Your task to perform on an android device: turn on improve location accuracy Image 0: 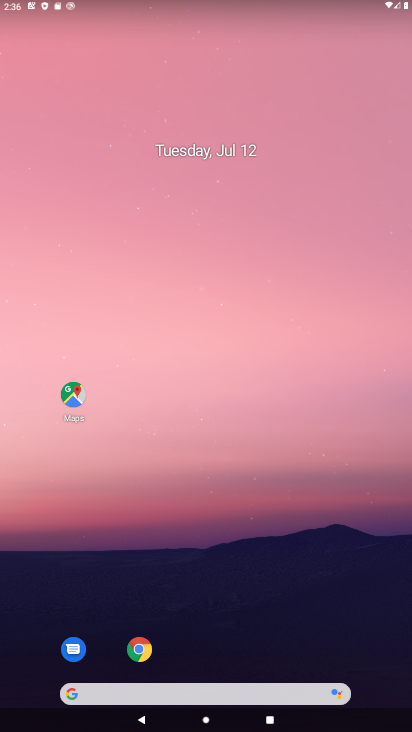
Step 0: drag from (272, 619) to (199, 184)
Your task to perform on an android device: turn on improve location accuracy Image 1: 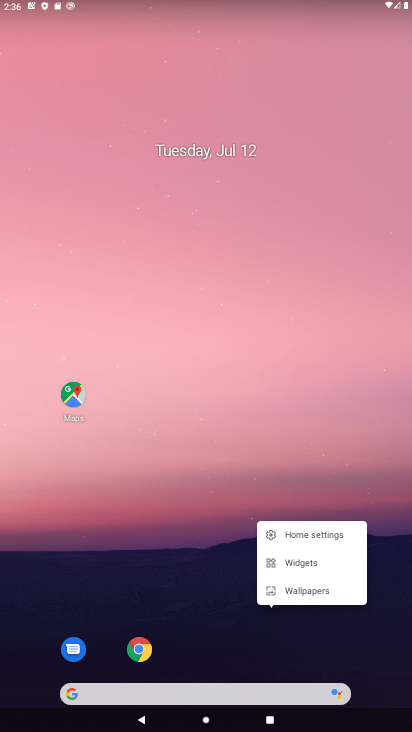
Step 1: click (199, 184)
Your task to perform on an android device: turn on improve location accuracy Image 2: 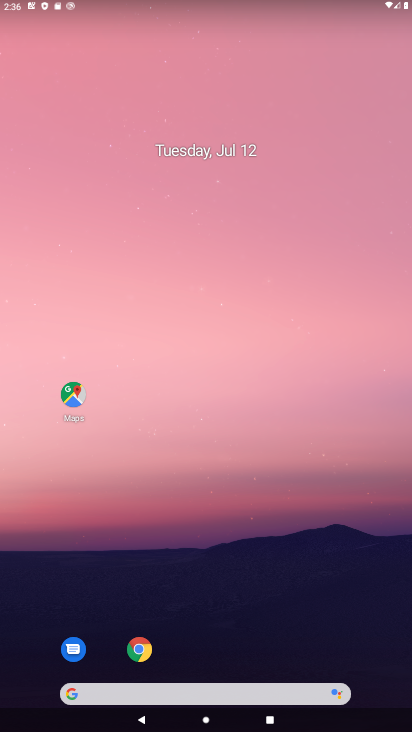
Step 2: drag from (191, 514) to (216, 78)
Your task to perform on an android device: turn on improve location accuracy Image 3: 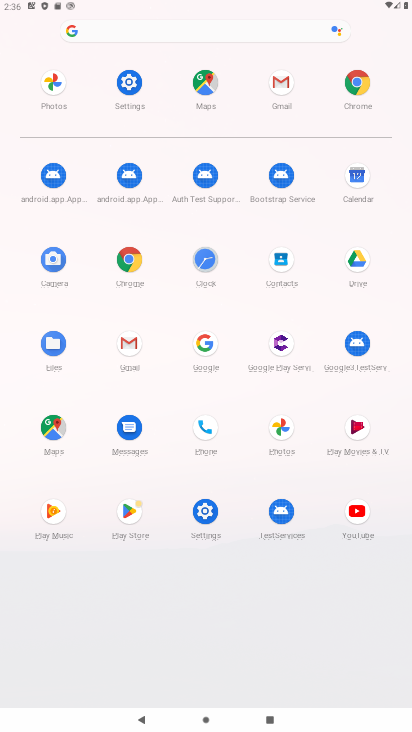
Step 3: click (124, 106)
Your task to perform on an android device: turn on improve location accuracy Image 4: 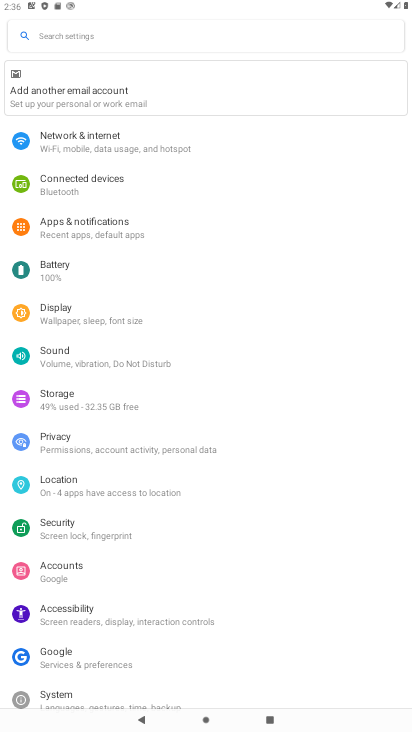
Step 4: click (100, 489)
Your task to perform on an android device: turn on improve location accuracy Image 5: 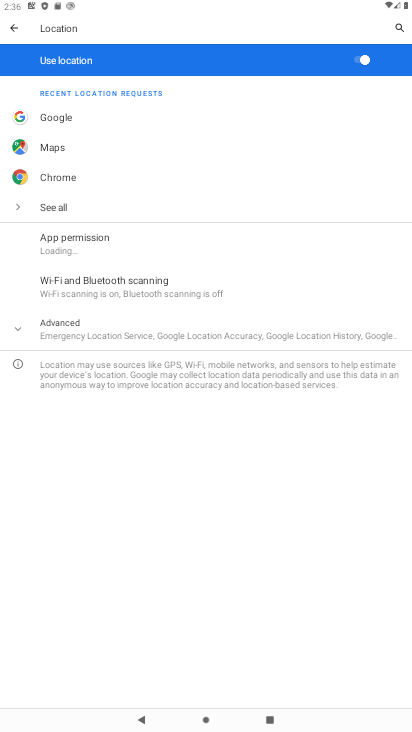
Step 5: click (92, 346)
Your task to perform on an android device: turn on improve location accuracy Image 6: 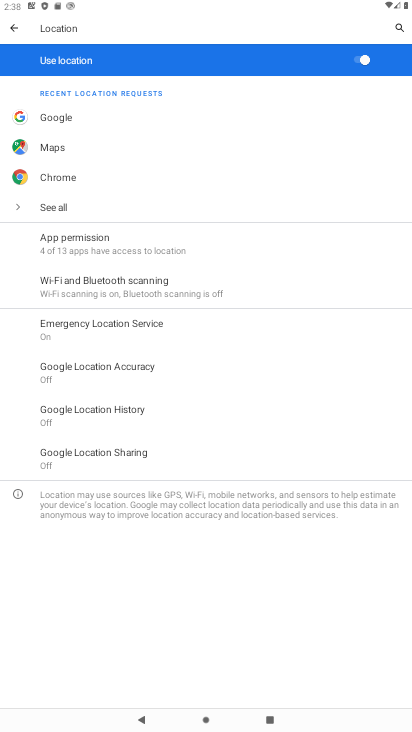
Step 6: click (82, 380)
Your task to perform on an android device: turn on improve location accuracy Image 7: 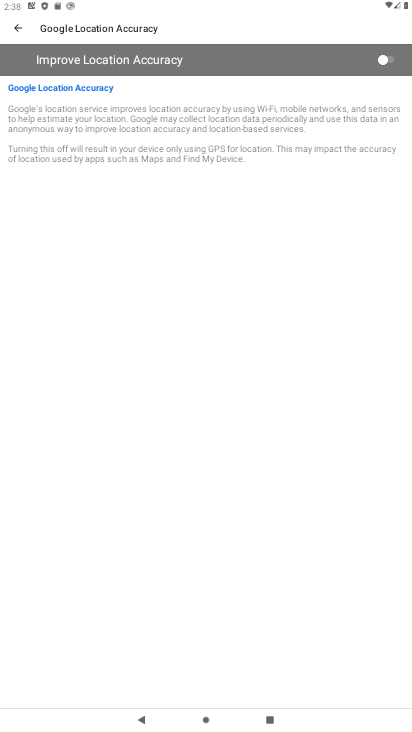
Step 7: click (377, 72)
Your task to perform on an android device: turn on improve location accuracy Image 8: 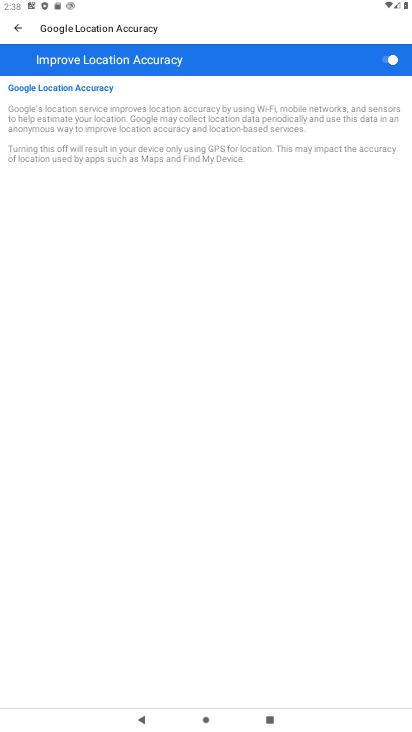
Step 8: task complete